Your task to perform on an android device: change alarm snooze length Image 0: 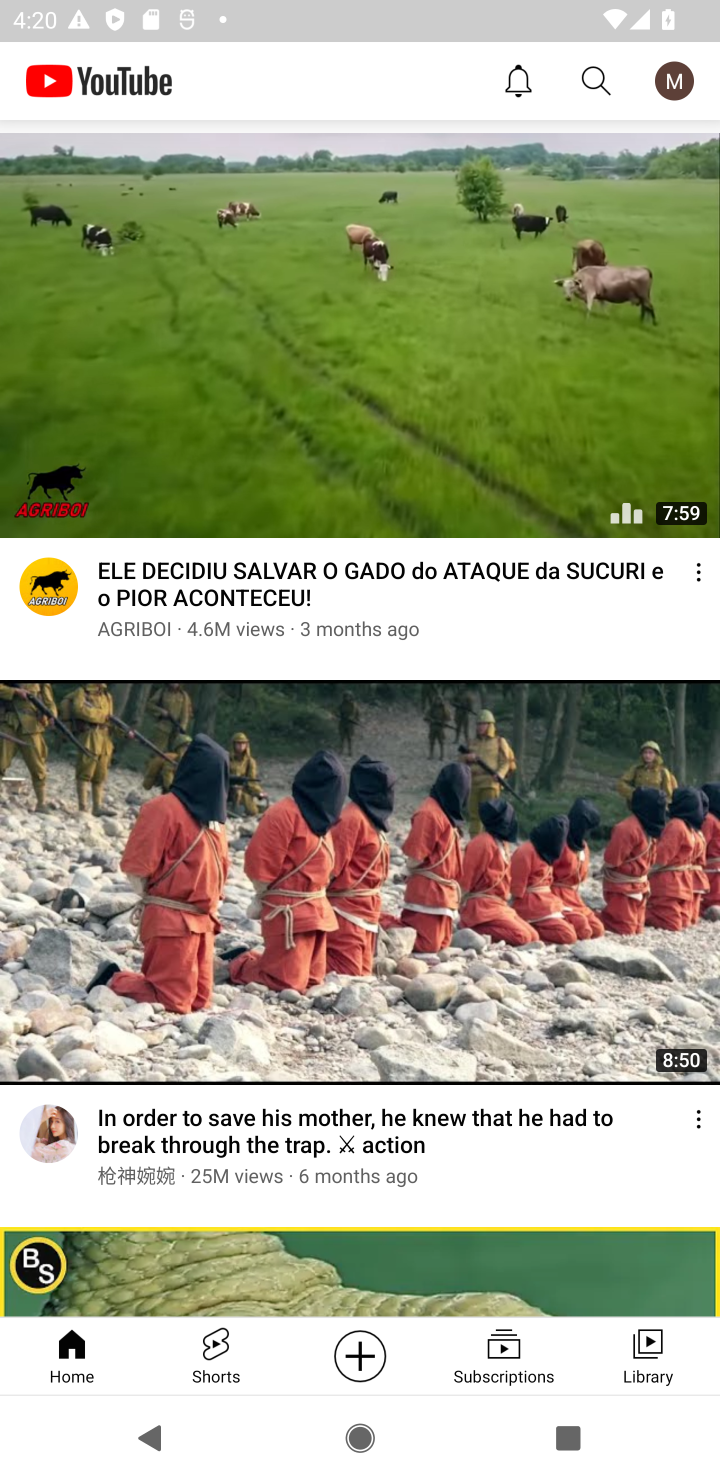
Step 0: press back button
Your task to perform on an android device: change alarm snooze length Image 1: 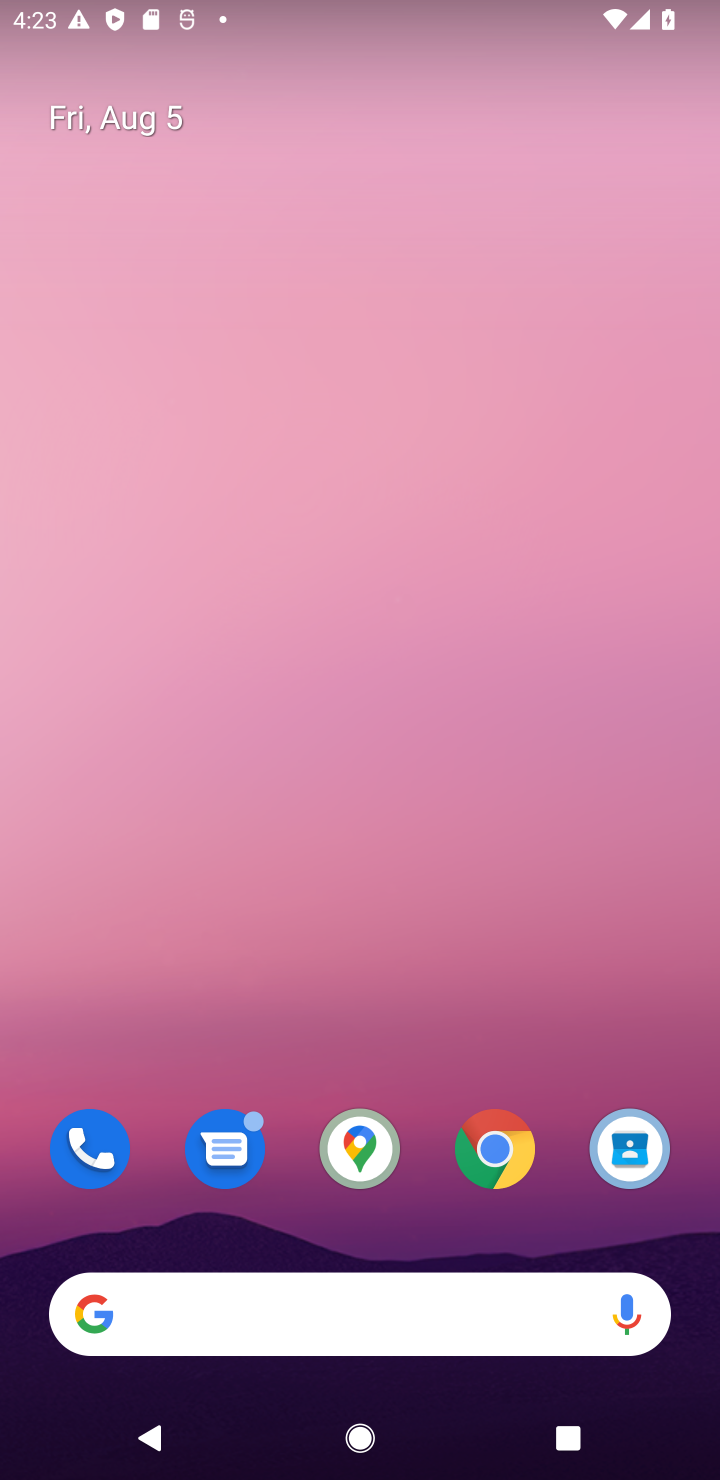
Step 1: drag from (381, 749) to (383, 8)
Your task to perform on an android device: change alarm snooze length Image 2: 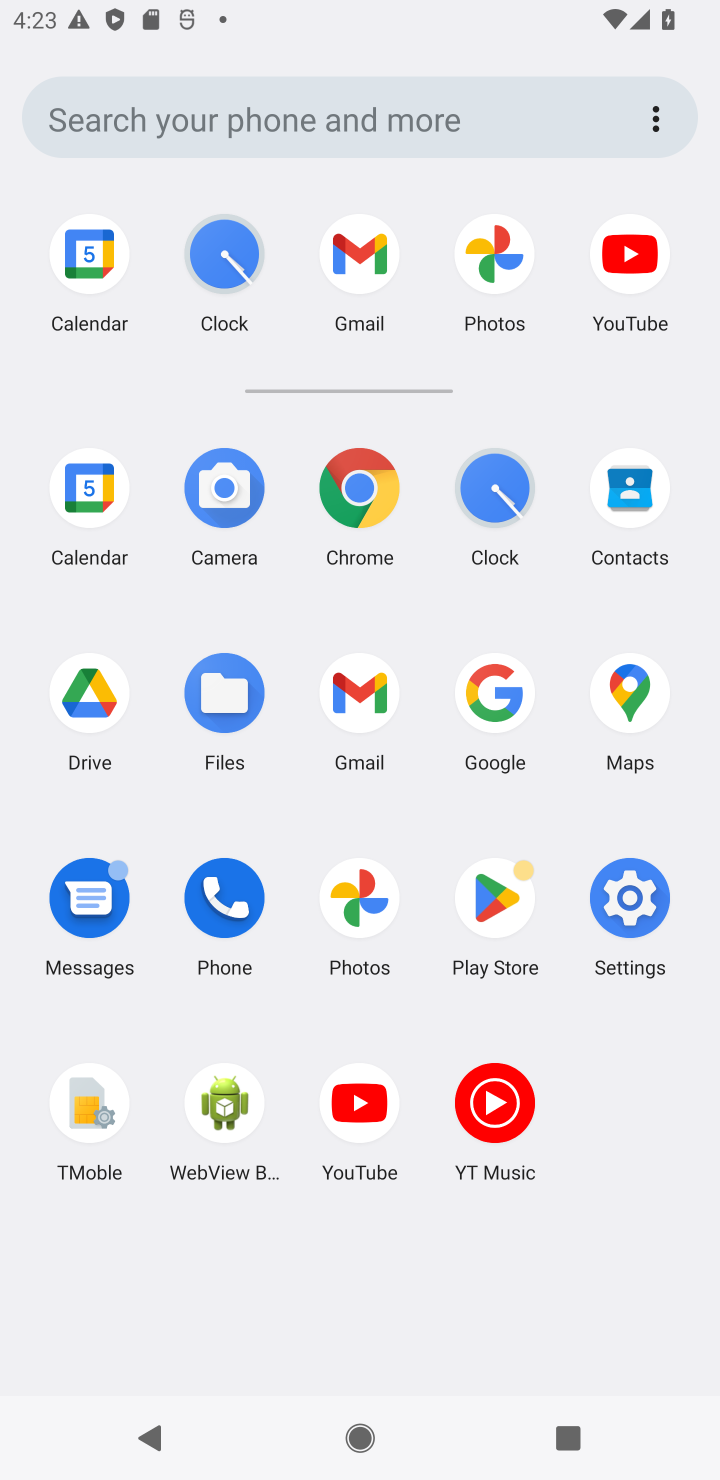
Step 2: click (480, 492)
Your task to perform on an android device: change alarm snooze length Image 3: 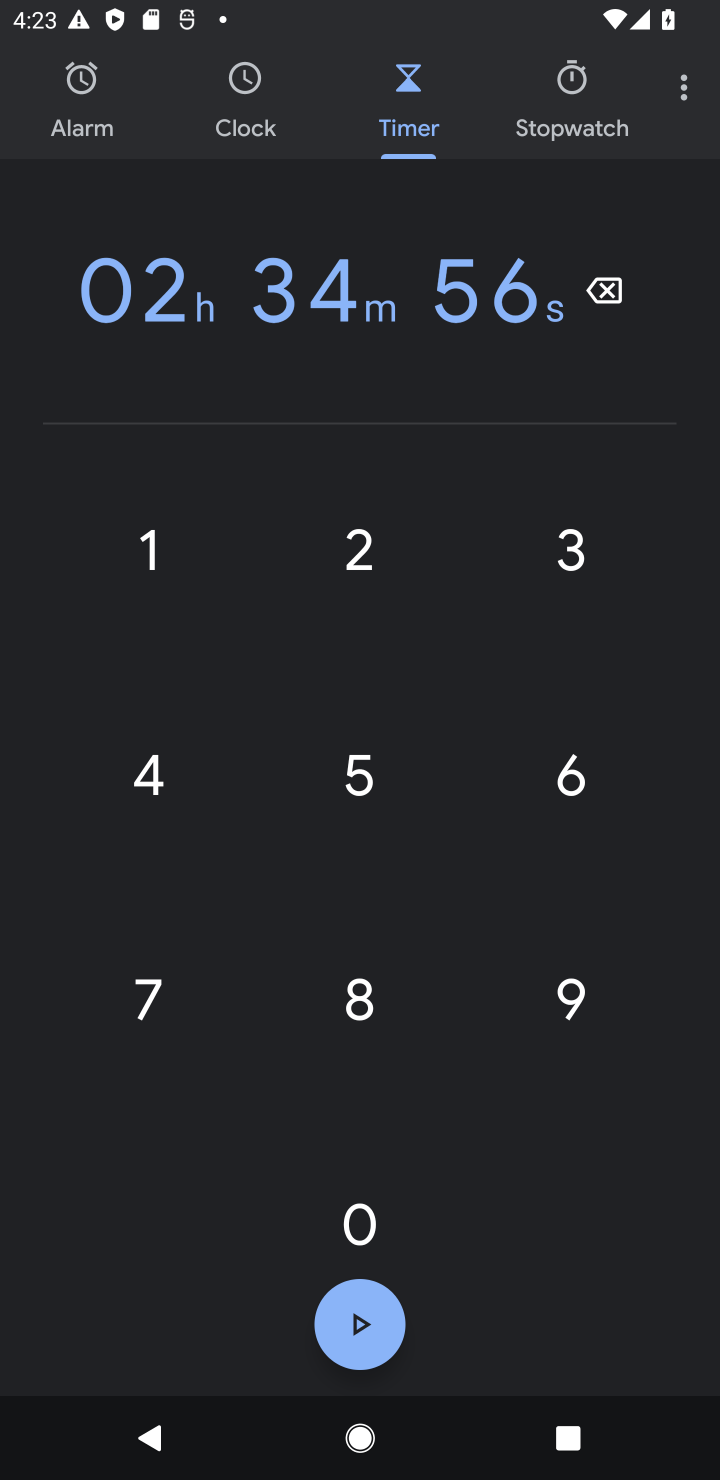
Step 3: click (672, 67)
Your task to perform on an android device: change alarm snooze length Image 4: 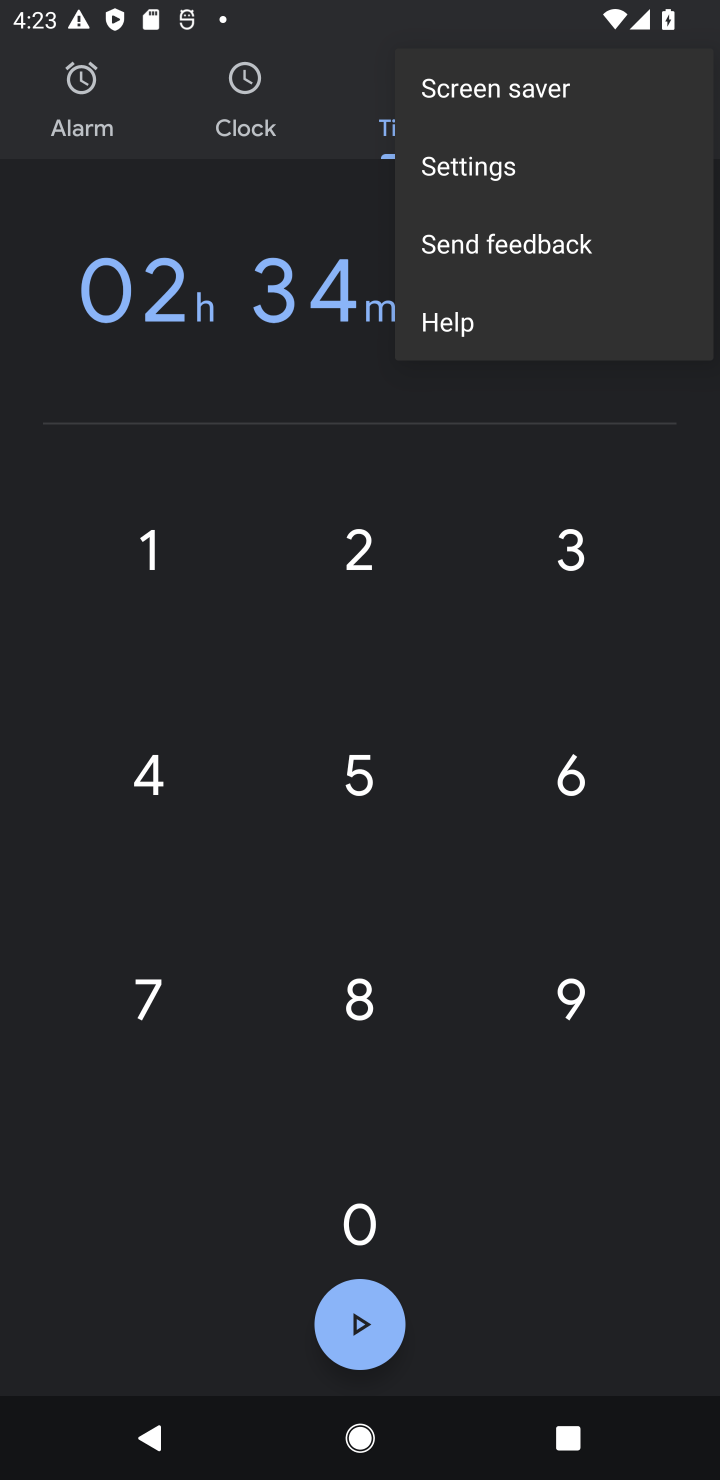
Step 4: click (524, 188)
Your task to perform on an android device: change alarm snooze length Image 5: 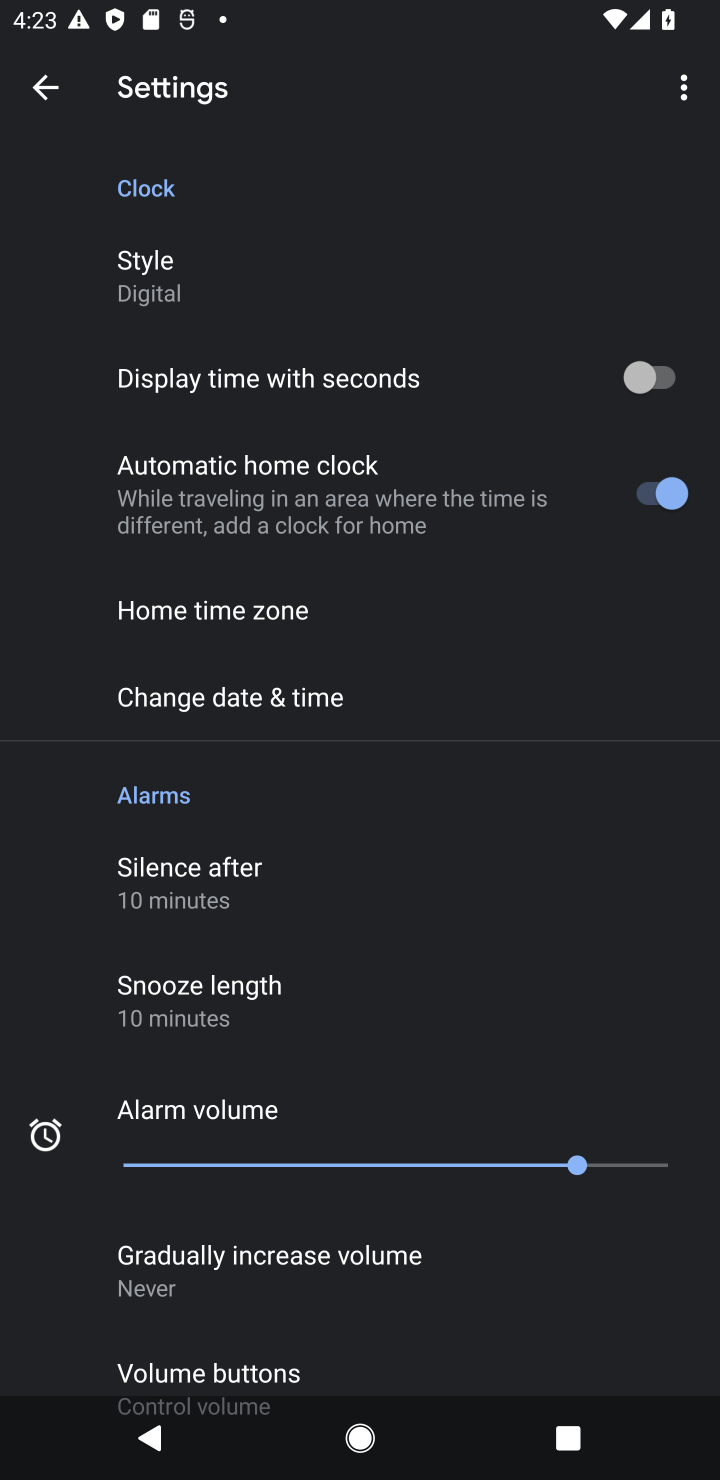
Step 5: click (208, 1001)
Your task to perform on an android device: change alarm snooze length Image 6: 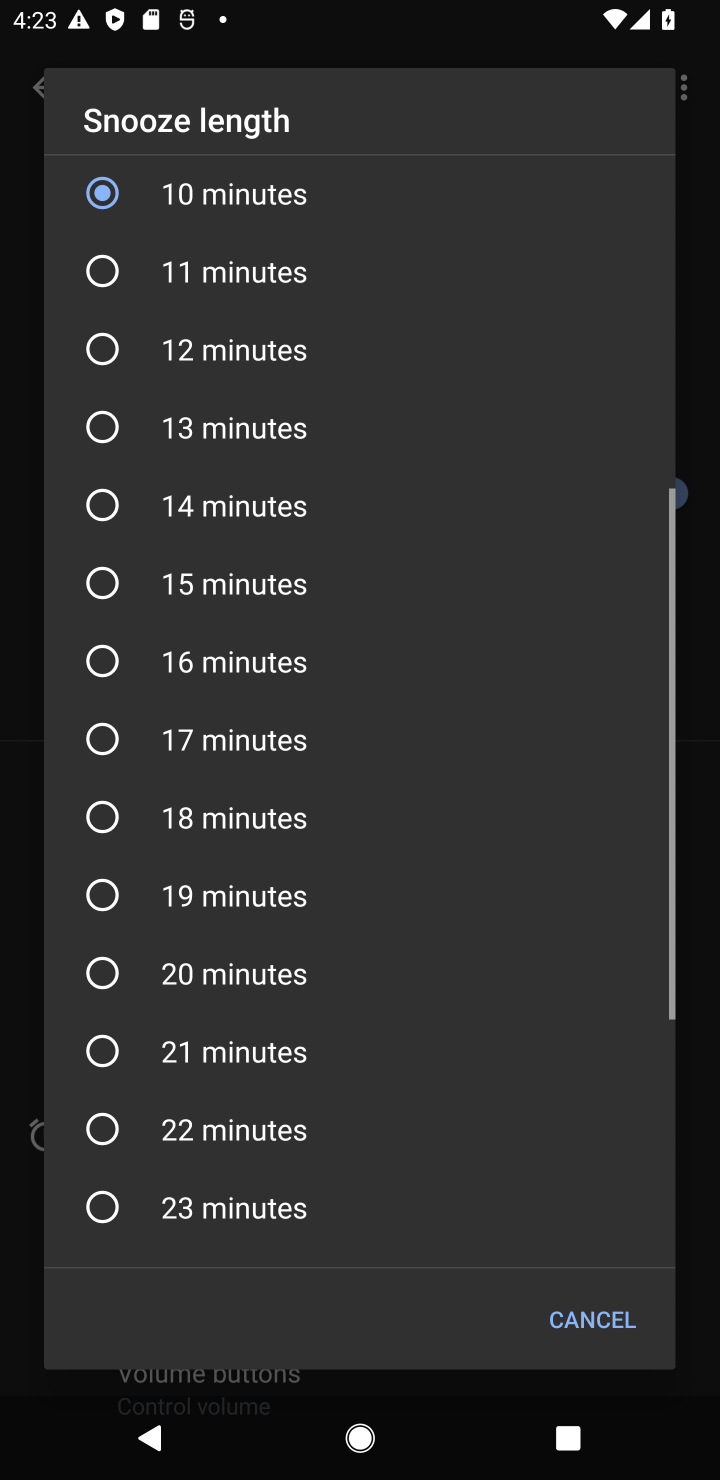
Step 6: click (103, 258)
Your task to perform on an android device: change alarm snooze length Image 7: 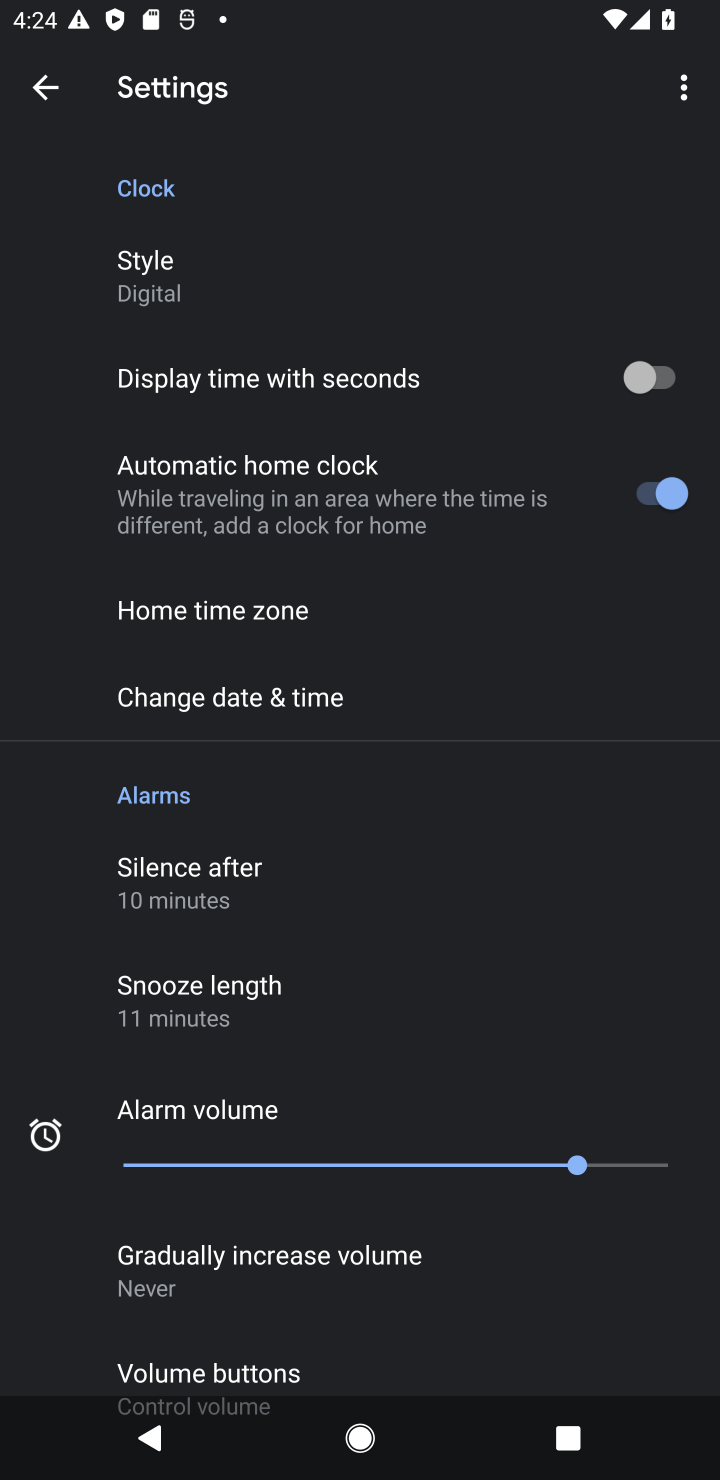
Step 7: task complete